Your task to perform on an android device: When is my next meeting? Image 0: 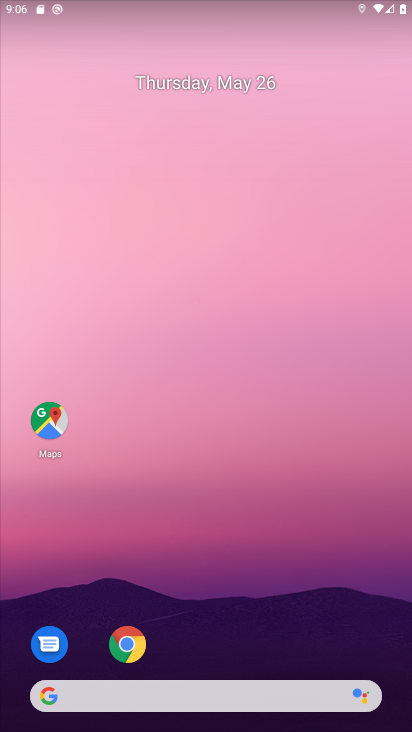
Step 0: drag from (200, 652) to (350, 302)
Your task to perform on an android device: When is my next meeting? Image 1: 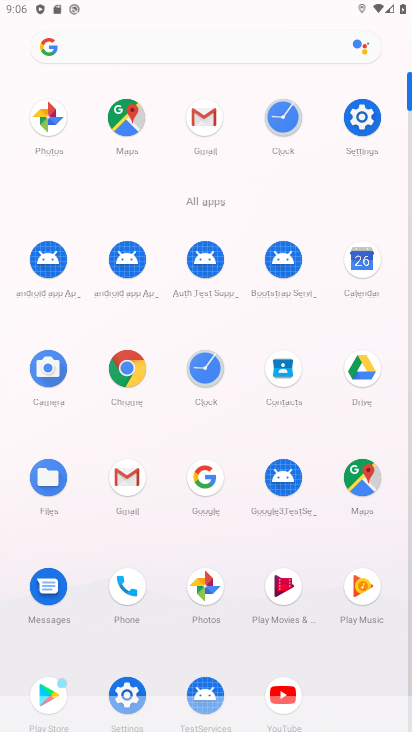
Step 1: click (366, 268)
Your task to perform on an android device: When is my next meeting? Image 2: 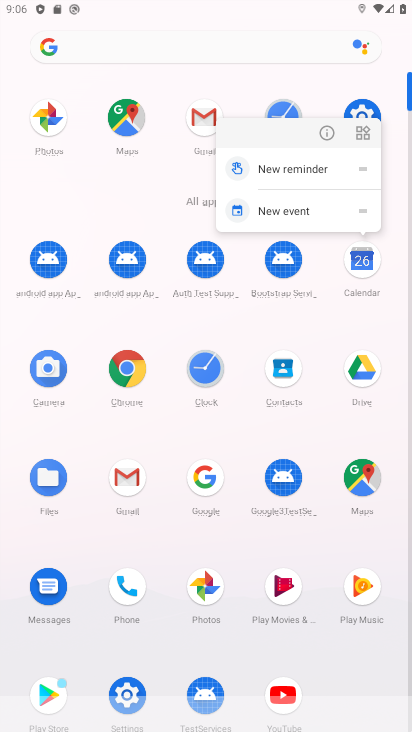
Step 2: click (368, 263)
Your task to perform on an android device: When is my next meeting? Image 3: 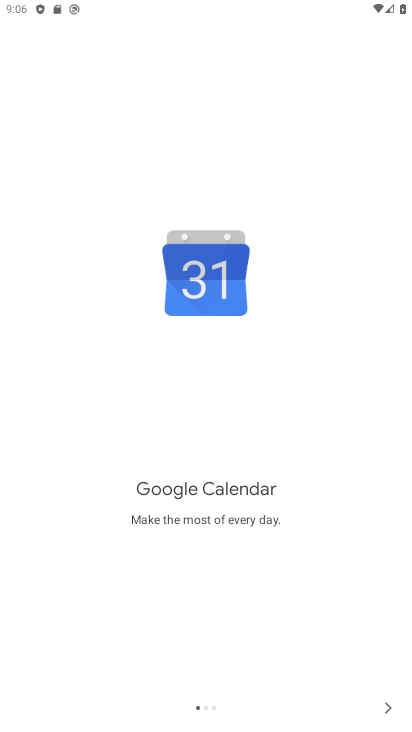
Step 3: click (385, 706)
Your task to perform on an android device: When is my next meeting? Image 4: 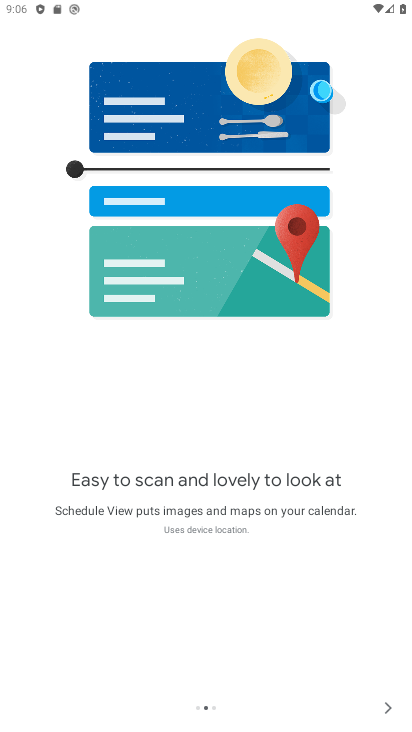
Step 4: click (383, 695)
Your task to perform on an android device: When is my next meeting? Image 5: 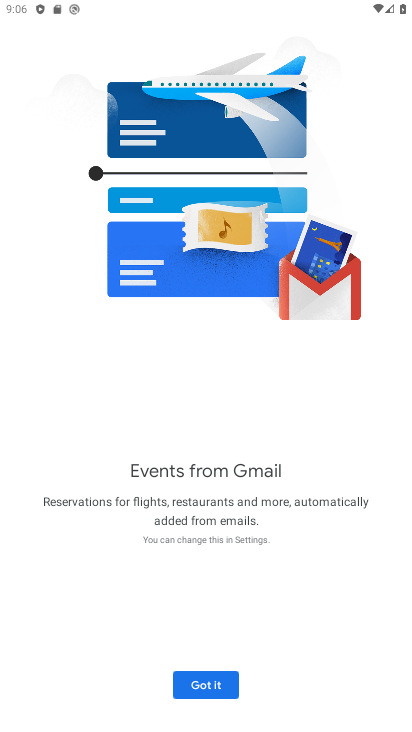
Step 5: click (220, 676)
Your task to perform on an android device: When is my next meeting? Image 6: 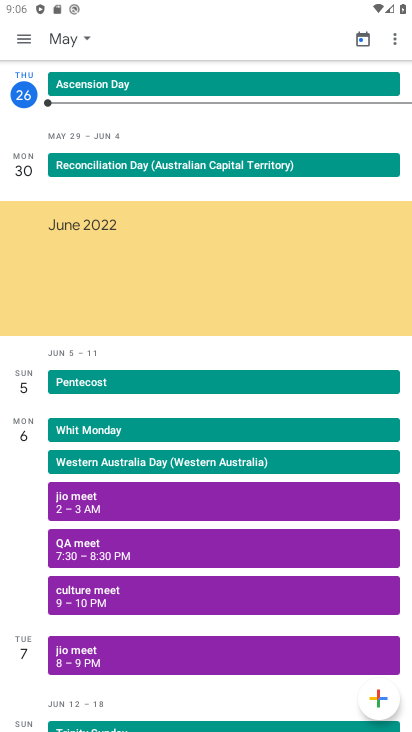
Step 6: click (80, 41)
Your task to perform on an android device: When is my next meeting? Image 7: 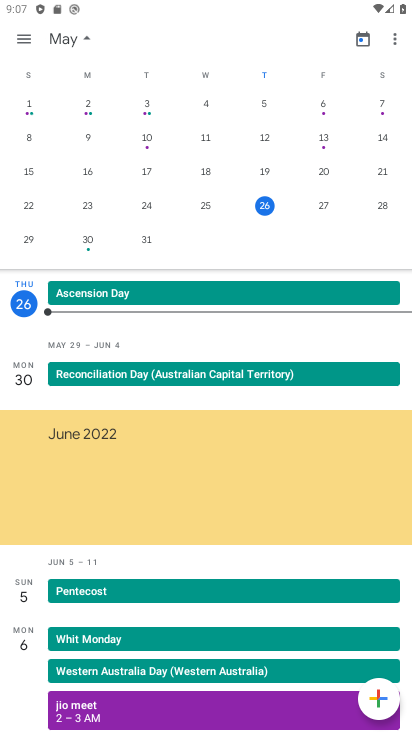
Step 7: click (335, 202)
Your task to perform on an android device: When is my next meeting? Image 8: 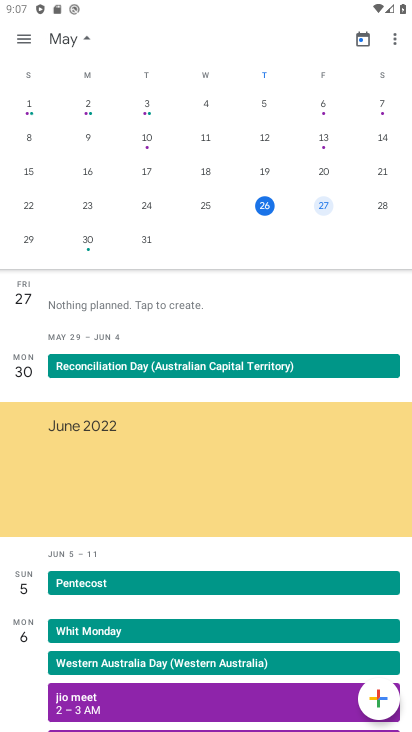
Step 8: click (366, 205)
Your task to perform on an android device: When is my next meeting? Image 9: 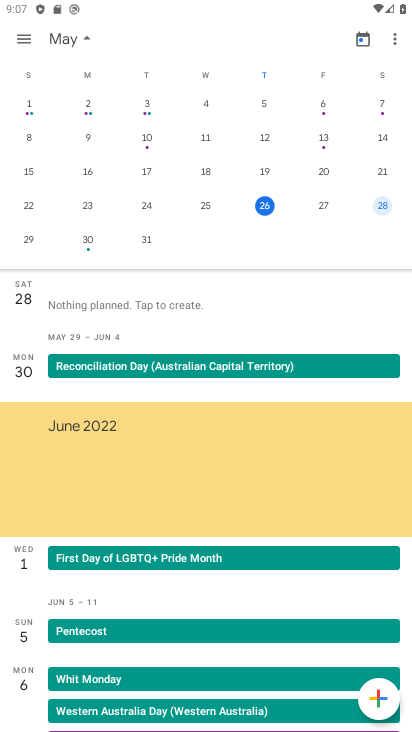
Step 9: click (29, 248)
Your task to perform on an android device: When is my next meeting? Image 10: 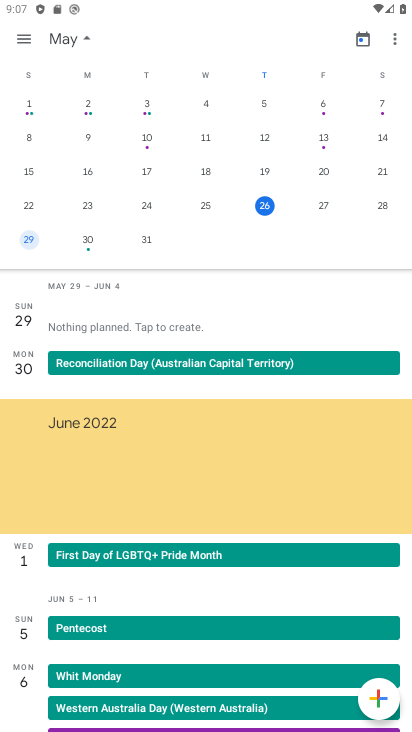
Step 10: click (95, 245)
Your task to perform on an android device: When is my next meeting? Image 11: 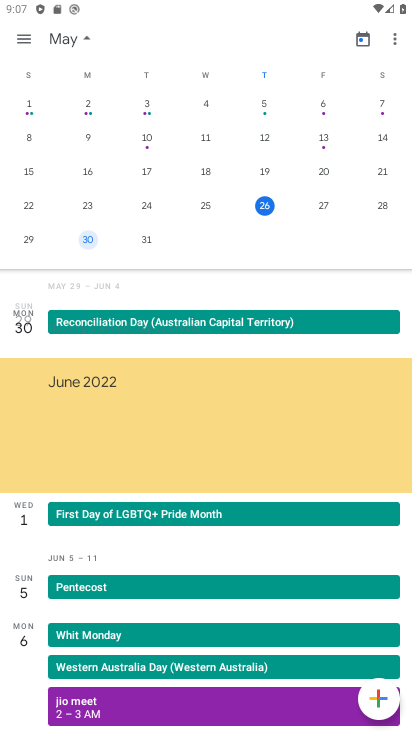
Step 11: click (151, 241)
Your task to perform on an android device: When is my next meeting? Image 12: 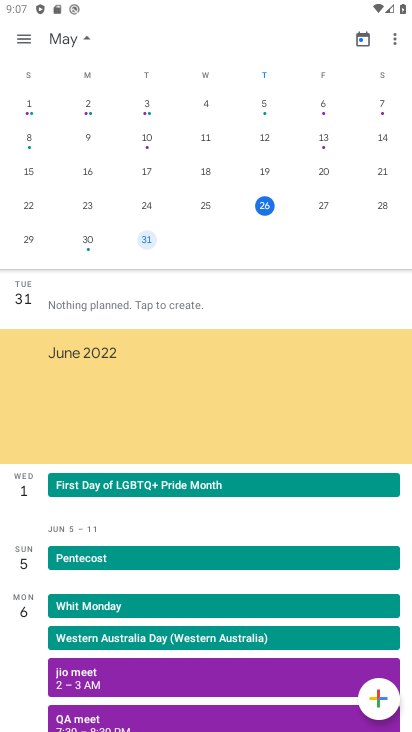
Step 12: task complete